Your task to perform on an android device: turn off translation in the chrome app Image 0: 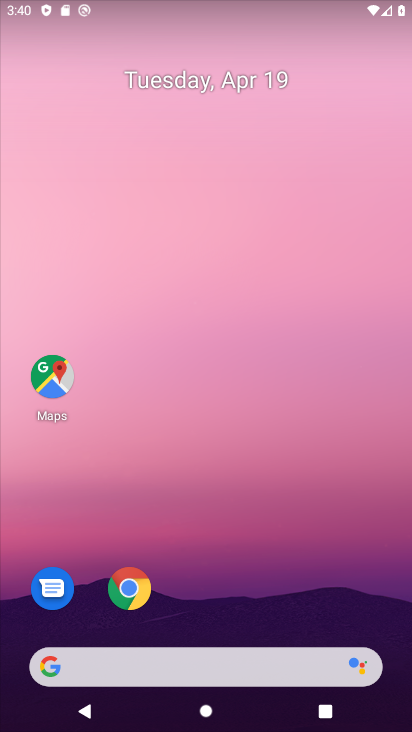
Step 0: click (139, 590)
Your task to perform on an android device: turn off translation in the chrome app Image 1: 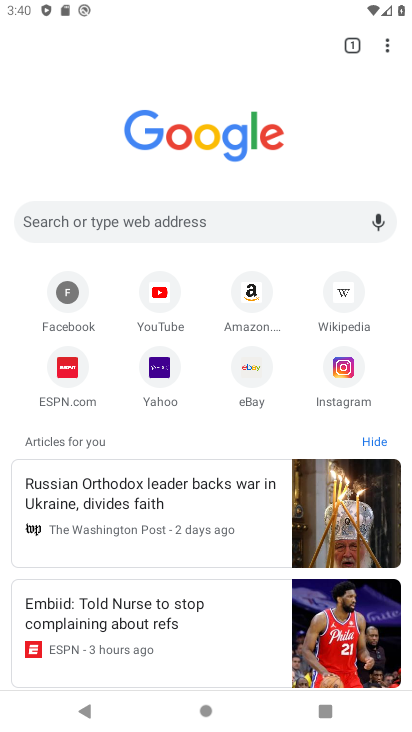
Step 1: click (387, 46)
Your task to perform on an android device: turn off translation in the chrome app Image 2: 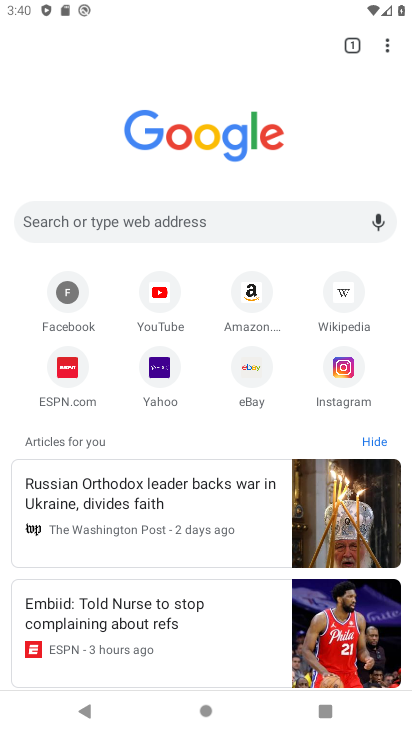
Step 2: click (386, 45)
Your task to perform on an android device: turn off translation in the chrome app Image 3: 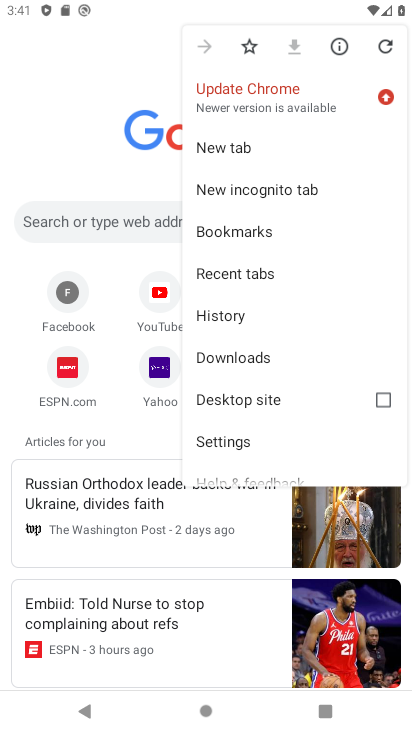
Step 3: click (248, 440)
Your task to perform on an android device: turn off translation in the chrome app Image 4: 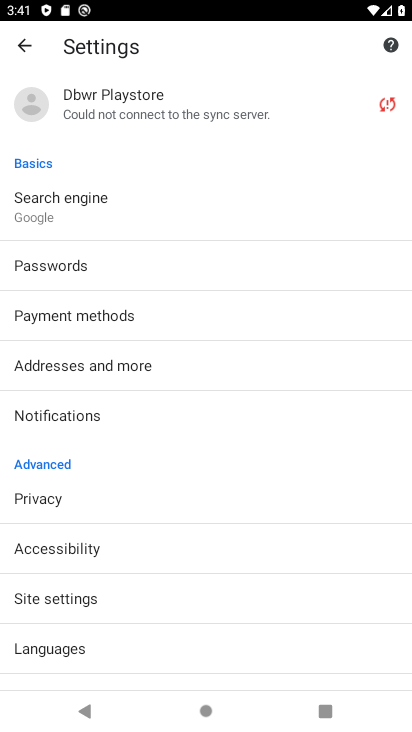
Step 4: click (109, 638)
Your task to perform on an android device: turn off translation in the chrome app Image 5: 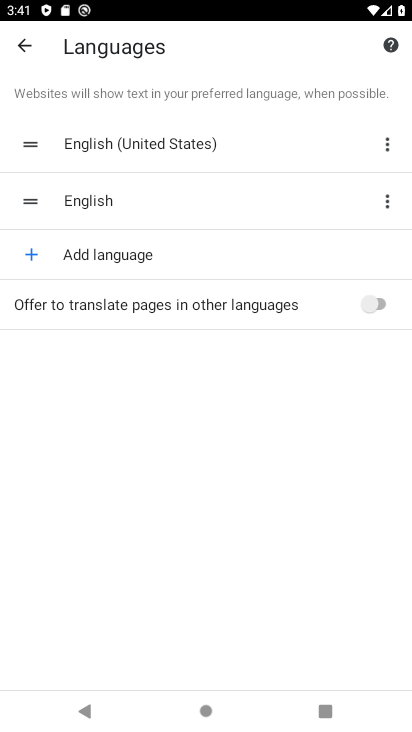
Step 5: task complete